Your task to perform on an android device: Open the Play Movies app and select the watchlist tab. Image 0: 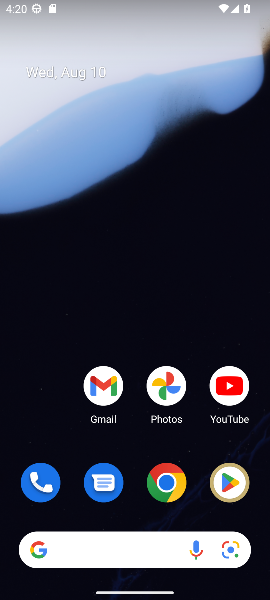
Step 0: drag from (61, 431) to (124, 32)
Your task to perform on an android device: Open the Play Movies app and select the watchlist tab. Image 1: 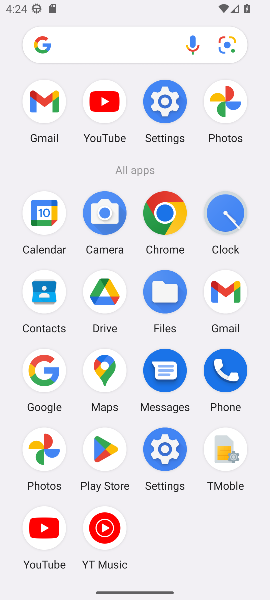
Step 1: task complete